Your task to perform on an android device: change the clock display to show seconds Image 0: 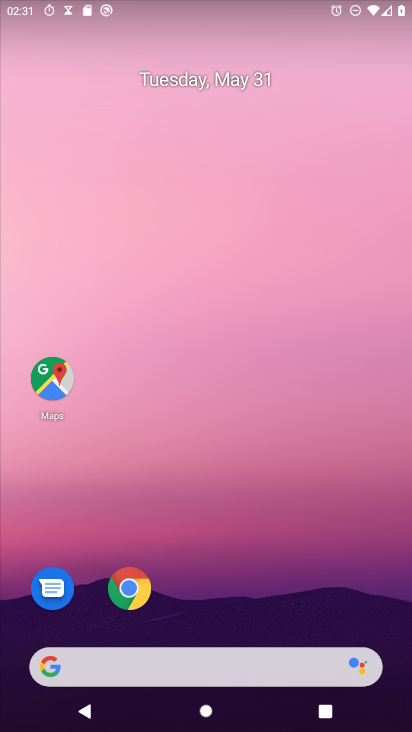
Step 0: drag from (314, 672) to (326, 7)
Your task to perform on an android device: change the clock display to show seconds Image 1: 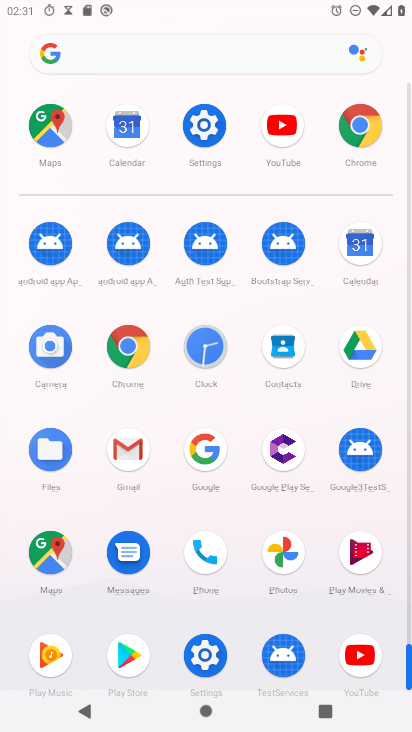
Step 1: click (204, 339)
Your task to perform on an android device: change the clock display to show seconds Image 2: 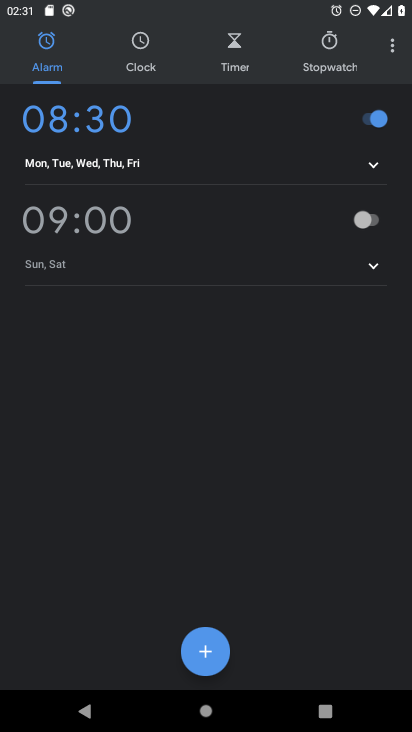
Step 2: click (395, 46)
Your task to perform on an android device: change the clock display to show seconds Image 3: 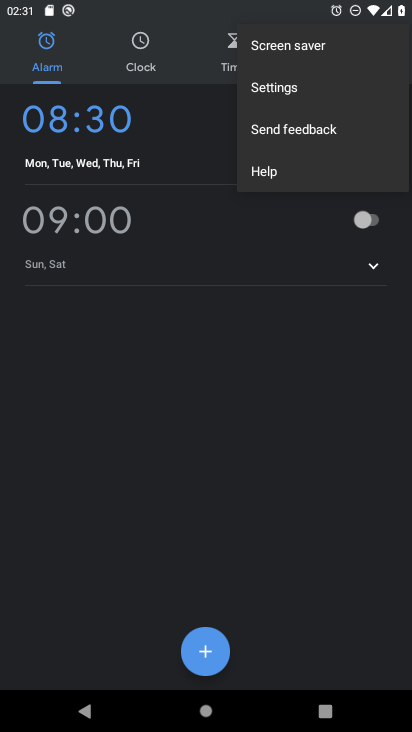
Step 3: click (296, 89)
Your task to perform on an android device: change the clock display to show seconds Image 4: 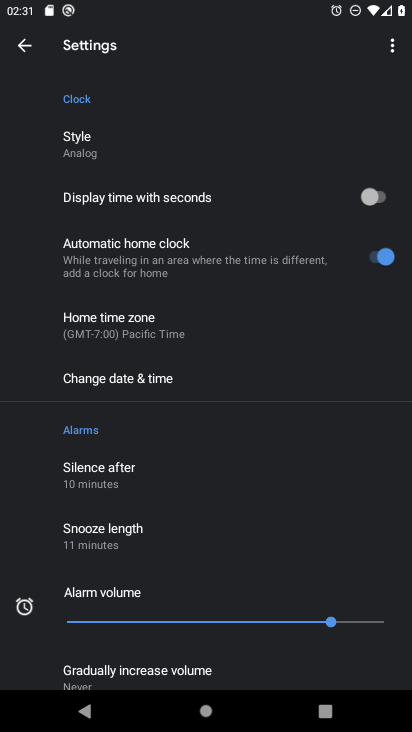
Step 4: task complete